Your task to perform on an android device: turn notification dots off Image 0: 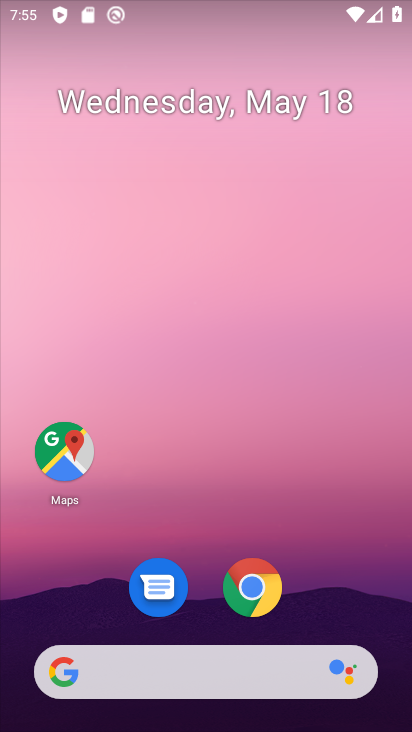
Step 0: drag from (198, 643) to (192, 290)
Your task to perform on an android device: turn notification dots off Image 1: 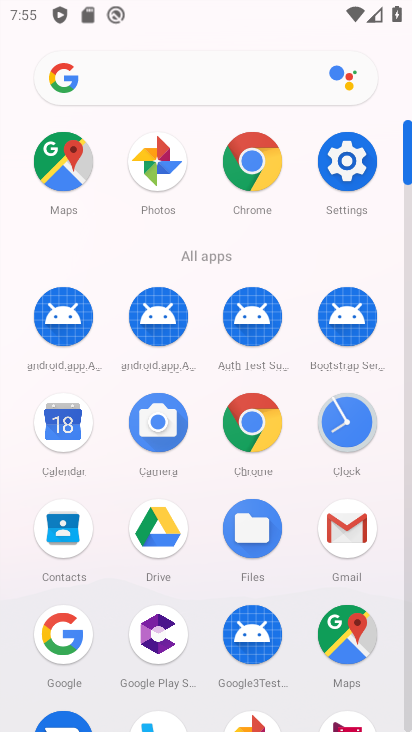
Step 1: click (355, 178)
Your task to perform on an android device: turn notification dots off Image 2: 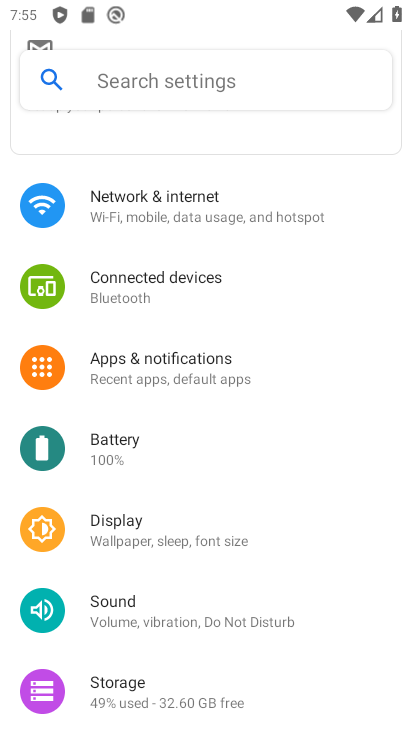
Step 2: click (207, 368)
Your task to perform on an android device: turn notification dots off Image 3: 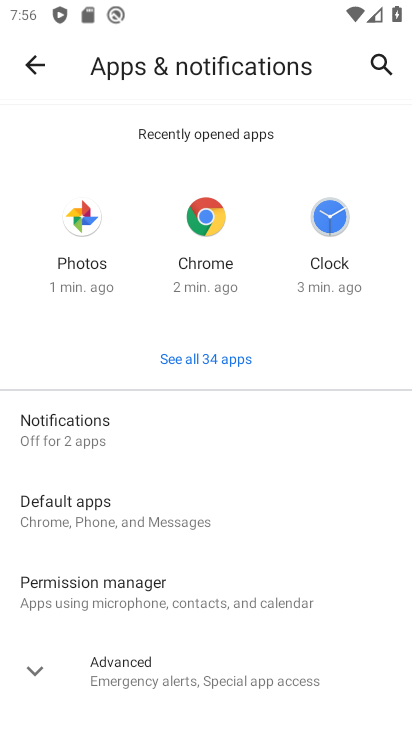
Step 3: click (165, 676)
Your task to perform on an android device: turn notification dots off Image 4: 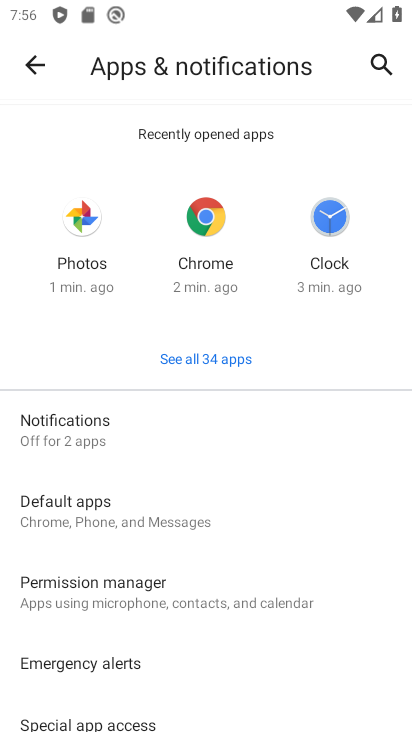
Step 4: click (134, 435)
Your task to perform on an android device: turn notification dots off Image 5: 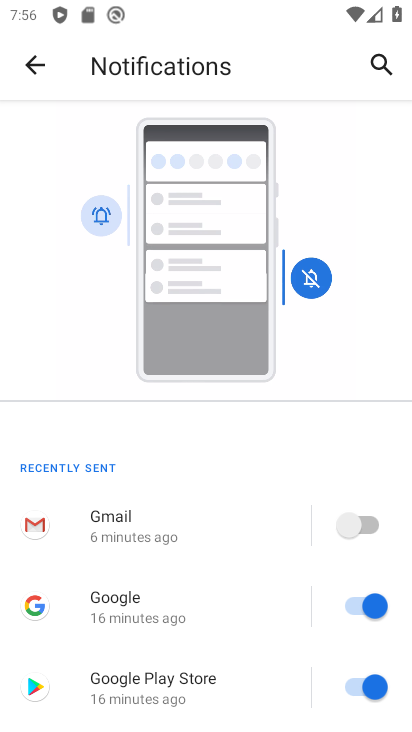
Step 5: drag from (132, 500) to (183, 249)
Your task to perform on an android device: turn notification dots off Image 6: 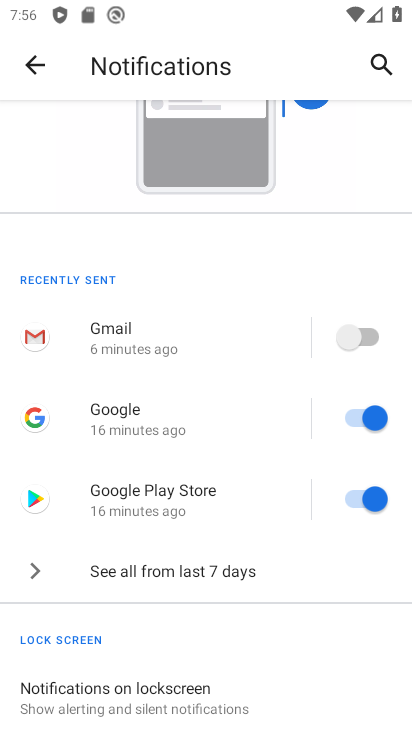
Step 6: drag from (165, 595) to (179, 289)
Your task to perform on an android device: turn notification dots off Image 7: 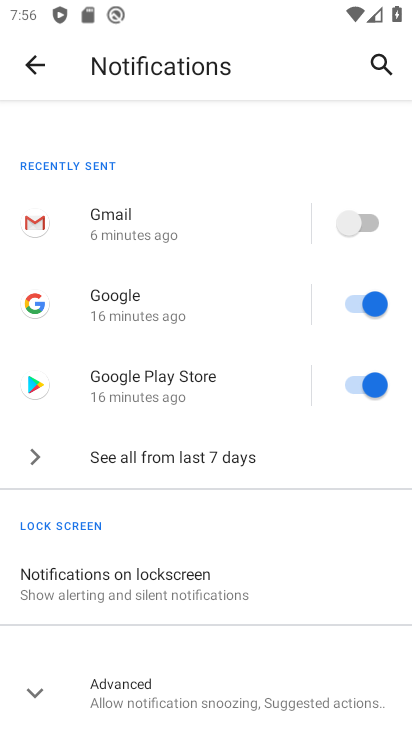
Step 7: click (153, 698)
Your task to perform on an android device: turn notification dots off Image 8: 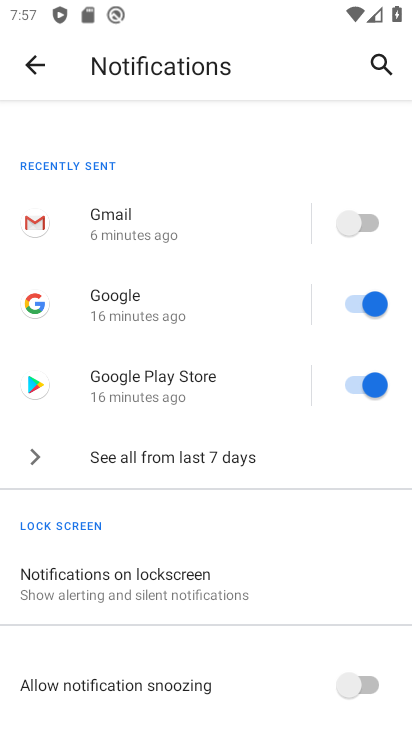
Step 8: drag from (162, 577) to (194, 191)
Your task to perform on an android device: turn notification dots off Image 9: 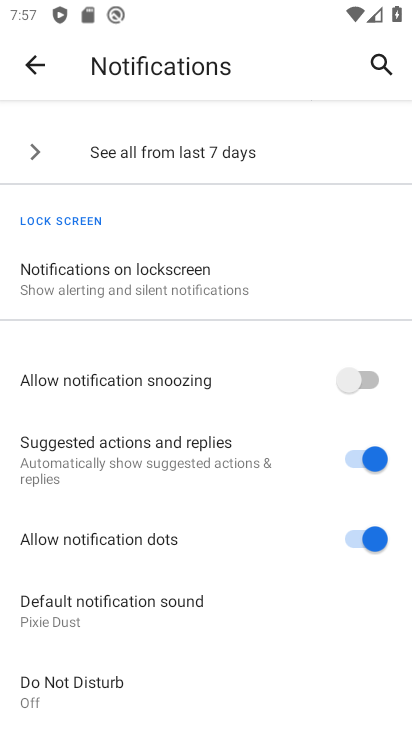
Step 9: click (342, 544)
Your task to perform on an android device: turn notification dots off Image 10: 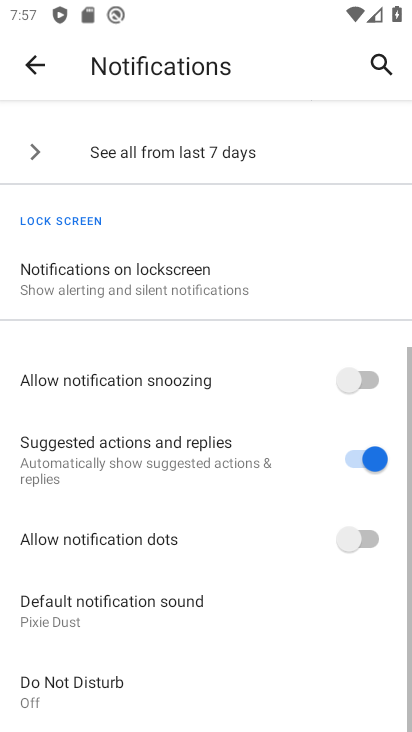
Step 10: task complete